Your task to perform on an android device: change text size in settings app Image 0: 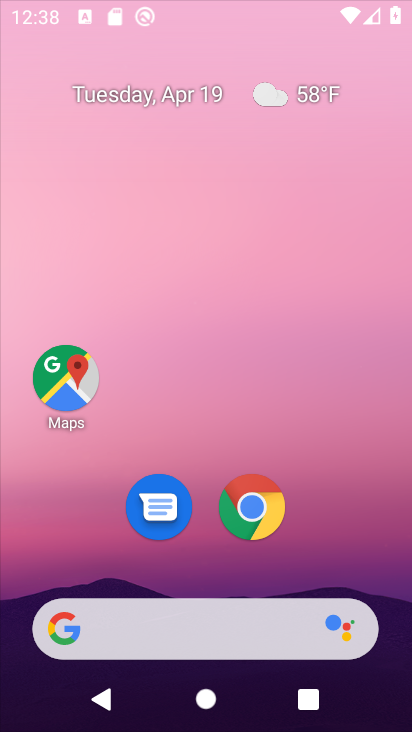
Step 0: click (225, 91)
Your task to perform on an android device: change text size in settings app Image 1: 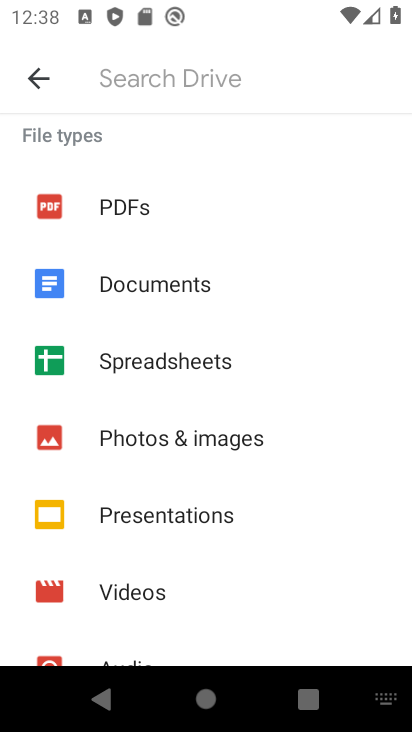
Step 1: press home button
Your task to perform on an android device: change text size in settings app Image 2: 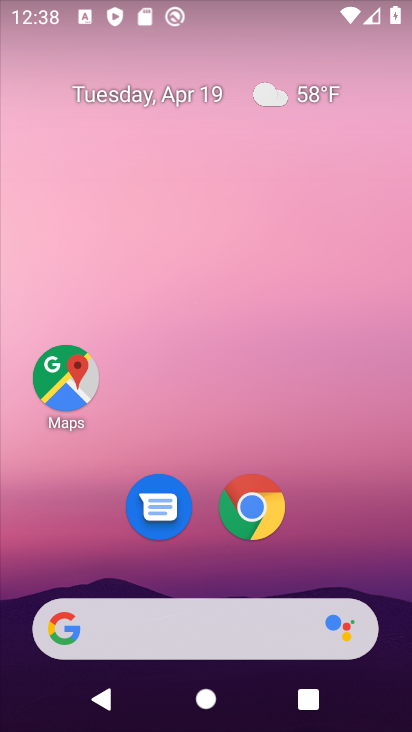
Step 2: drag from (231, 477) to (241, 100)
Your task to perform on an android device: change text size in settings app Image 3: 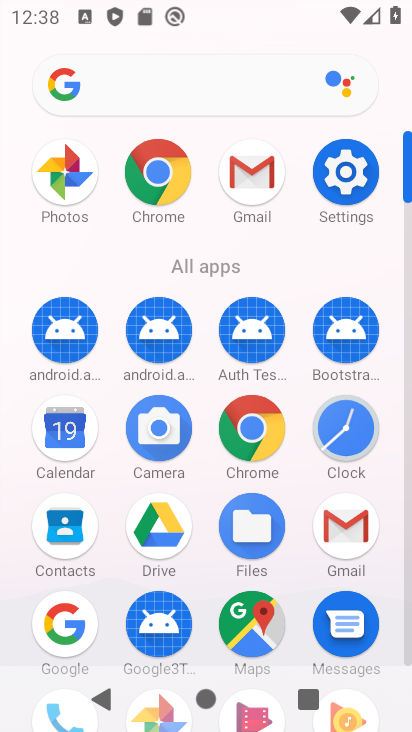
Step 3: click (348, 172)
Your task to perform on an android device: change text size in settings app Image 4: 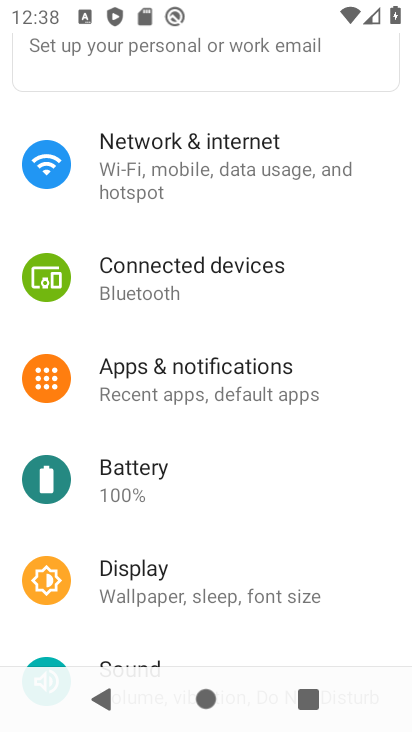
Step 4: click (172, 571)
Your task to perform on an android device: change text size in settings app Image 5: 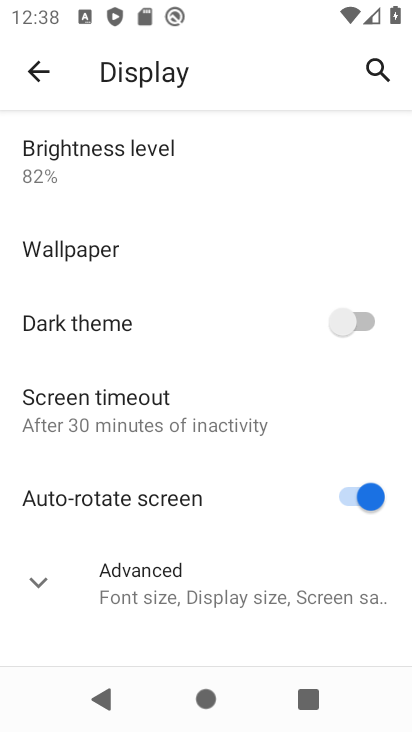
Step 5: click (172, 597)
Your task to perform on an android device: change text size in settings app Image 6: 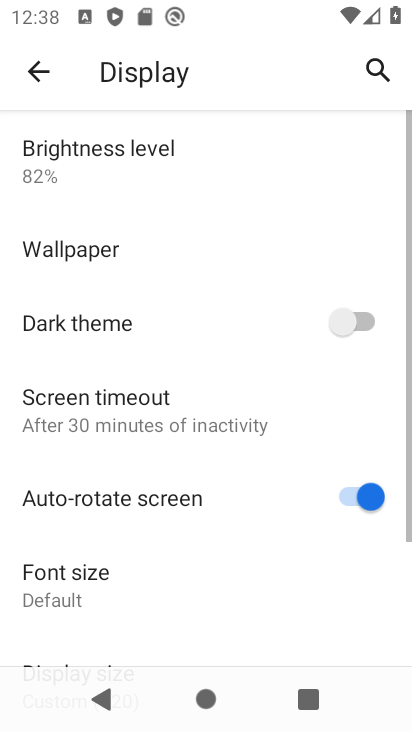
Step 6: click (172, 597)
Your task to perform on an android device: change text size in settings app Image 7: 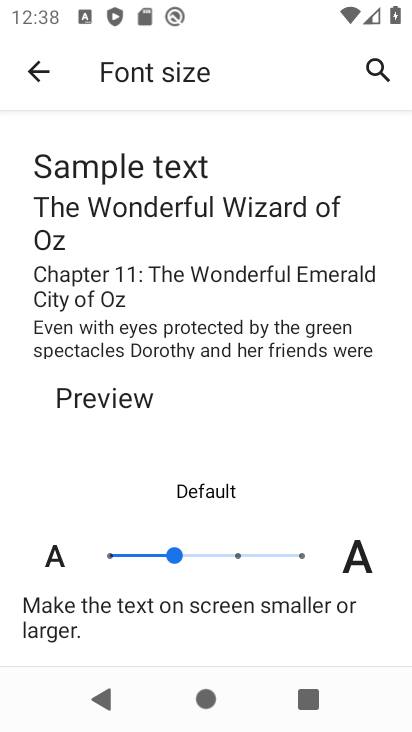
Step 7: click (106, 552)
Your task to perform on an android device: change text size in settings app Image 8: 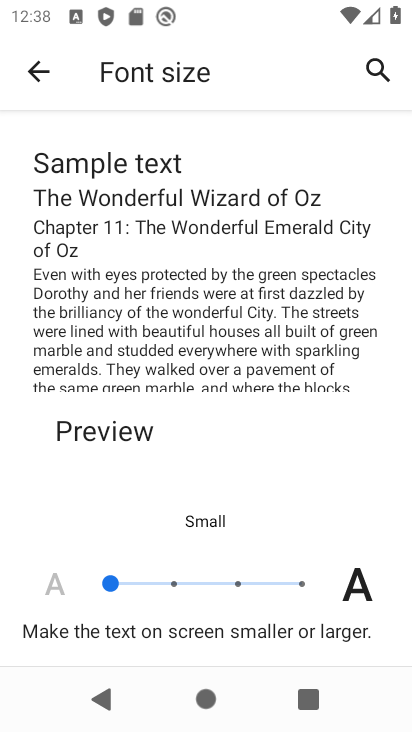
Step 8: task complete